Your task to perform on an android device: open chrome privacy settings Image 0: 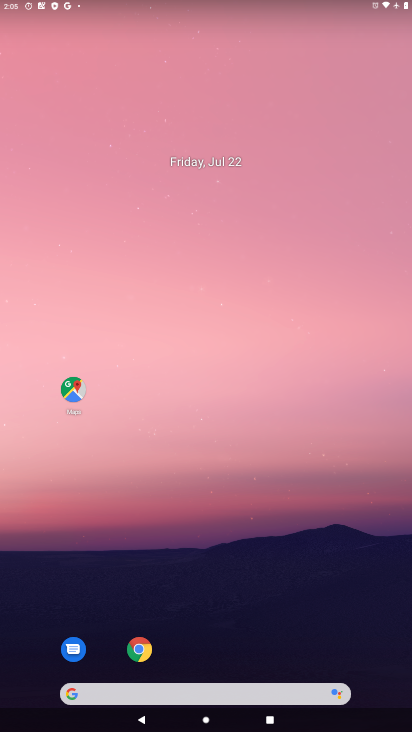
Step 0: drag from (262, 605) to (261, 115)
Your task to perform on an android device: open chrome privacy settings Image 1: 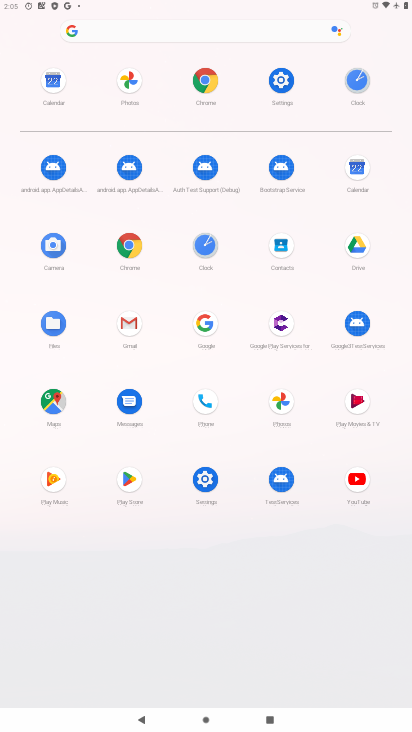
Step 1: click (279, 82)
Your task to perform on an android device: open chrome privacy settings Image 2: 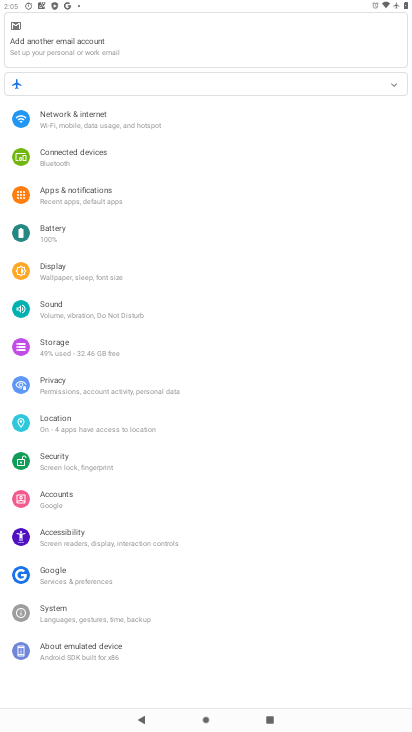
Step 2: click (93, 392)
Your task to perform on an android device: open chrome privacy settings Image 3: 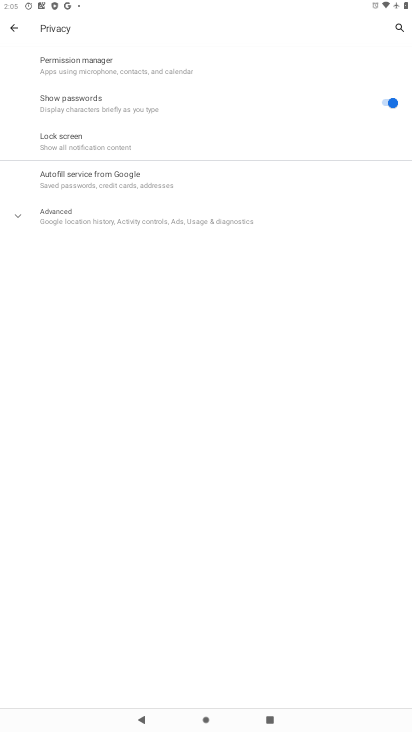
Step 3: task complete